Your task to perform on an android device: Is it going to rain today? Image 0: 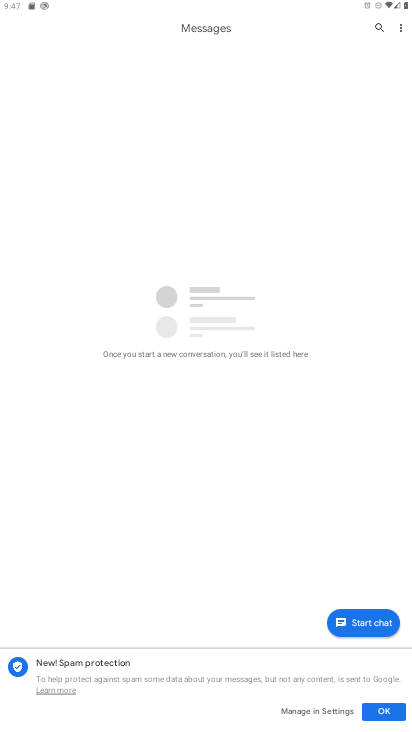
Step 0: press home button
Your task to perform on an android device: Is it going to rain today? Image 1: 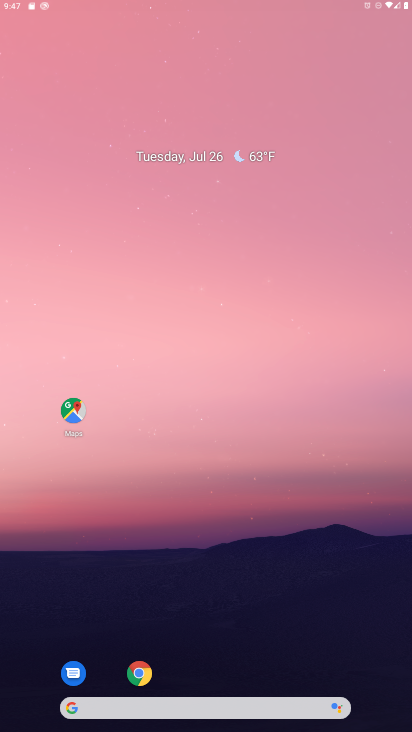
Step 1: drag from (366, 661) to (172, 35)
Your task to perform on an android device: Is it going to rain today? Image 2: 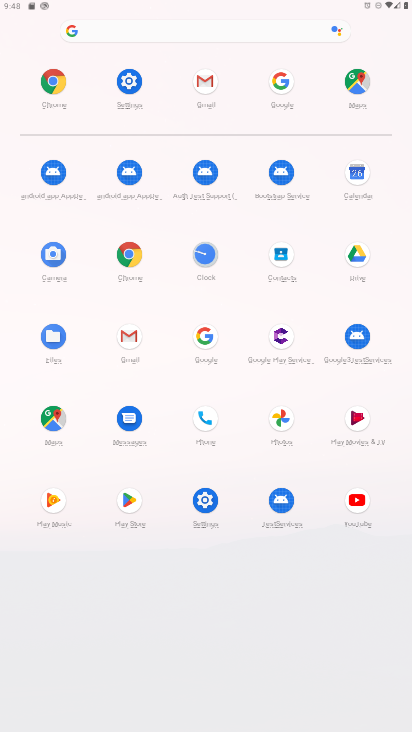
Step 2: click (212, 336)
Your task to perform on an android device: Is it going to rain today? Image 3: 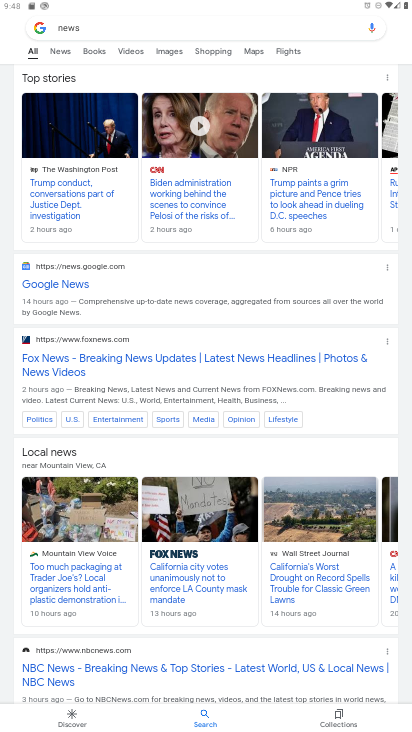
Step 3: press back button
Your task to perform on an android device: Is it going to rain today? Image 4: 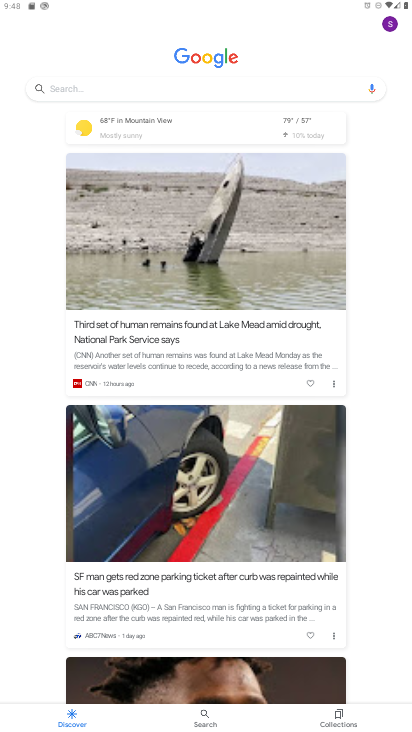
Step 4: click (174, 87)
Your task to perform on an android device: Is it going to rain today? Image 5: 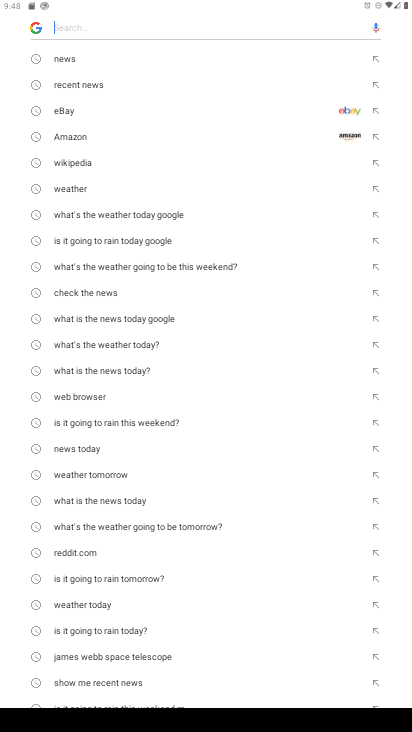
Step 5: click (91, 630)
Your task to perform on an android device: Is it going to rain today? Image 6: 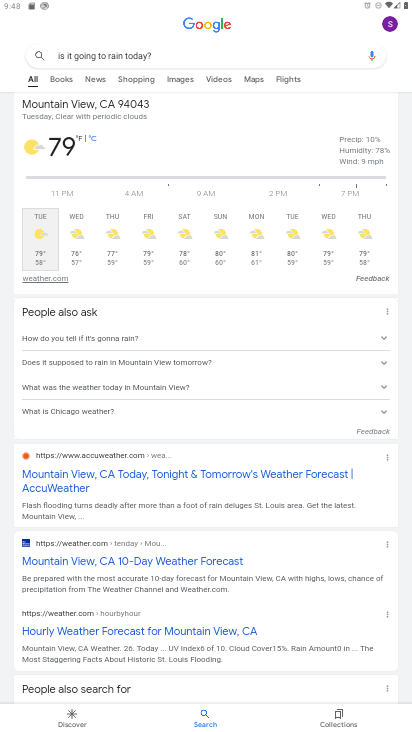
Step 6: task complete